Your task to perform on an android device: Toggle the flashlight Image 0: 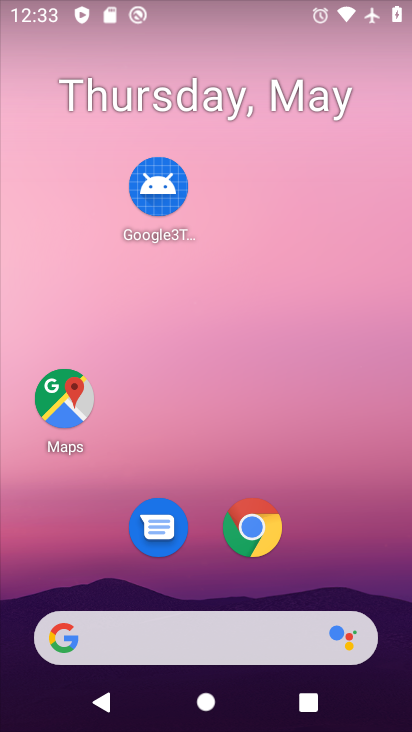
Step 0: drag from (210, 586) to (239, 184)
Your task to perform on an android device: Toggle the flashlight Image 1: 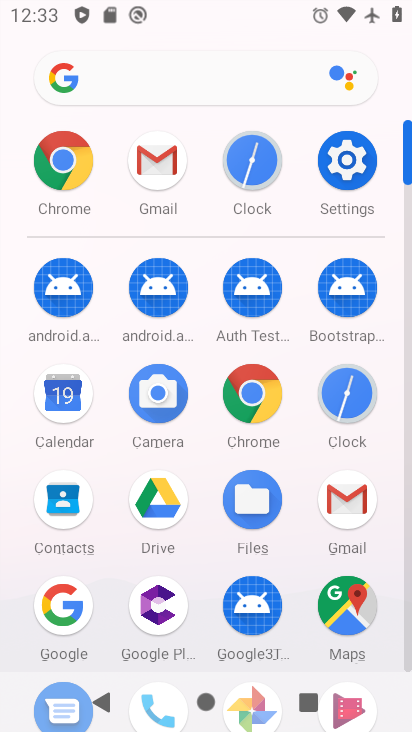
Step 1: click (341, 149)
Your task to perform on an android device: Toggle the flashlight Image 2: 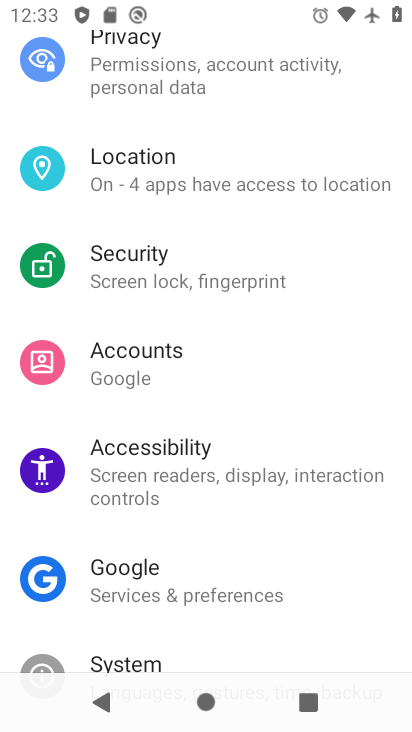
Step 2: drag from (195, 123) to (242, 631)
Your task to perform on an android device: Toggle the flashlight Image 3: 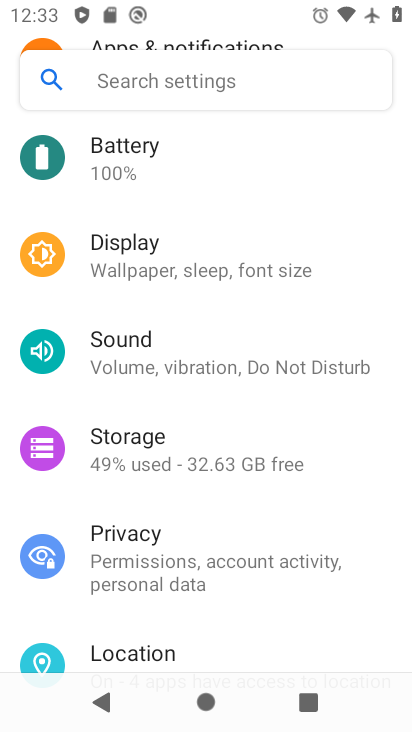
Step 3: click (140, 68)
Your task to perform on an android device: Toggle the flashlight Image 4: 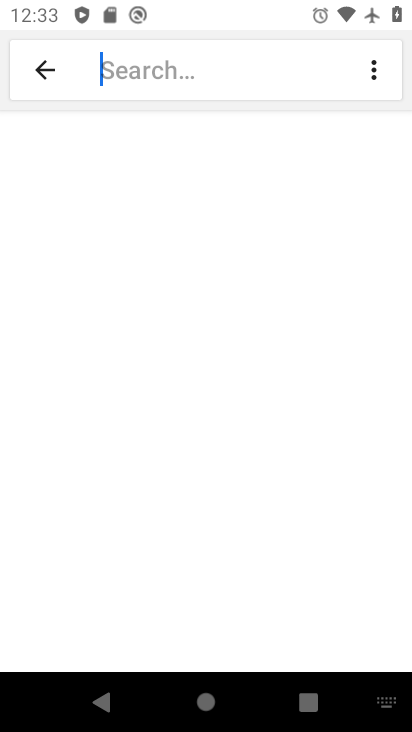
Step 4: type "flashlight"
Your task to perform on an android device: Toggle the flashlight Image 5: 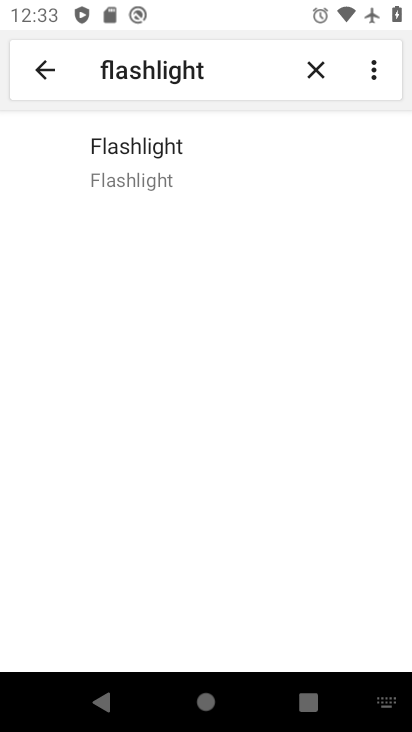
Step 5: click (191, 160)
Your task to perform on an android device: Toggle the flashlight Image 6: 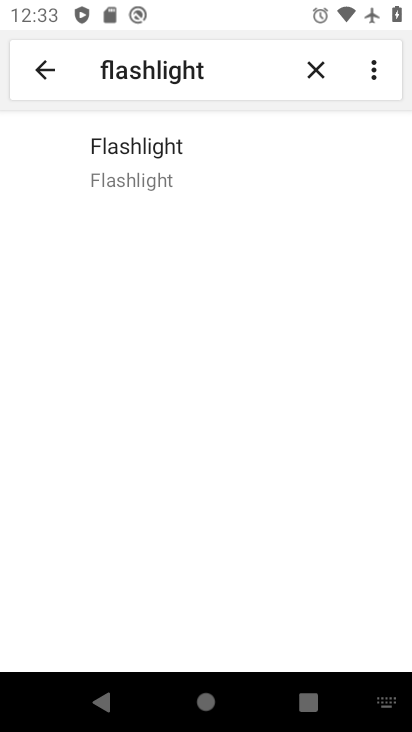
Step 6: task complete